Your task to perform on an android device: turn on javascript in the chrome app Image 0: 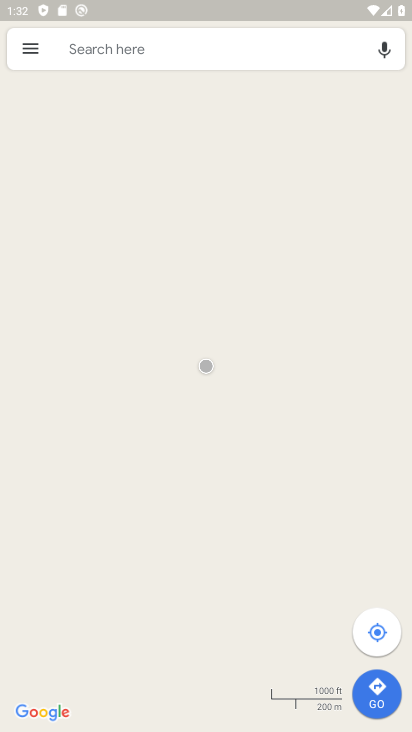
Step 0: press home button
Your task to perform on an android device: turn on javascript in the chrome app Image 1: 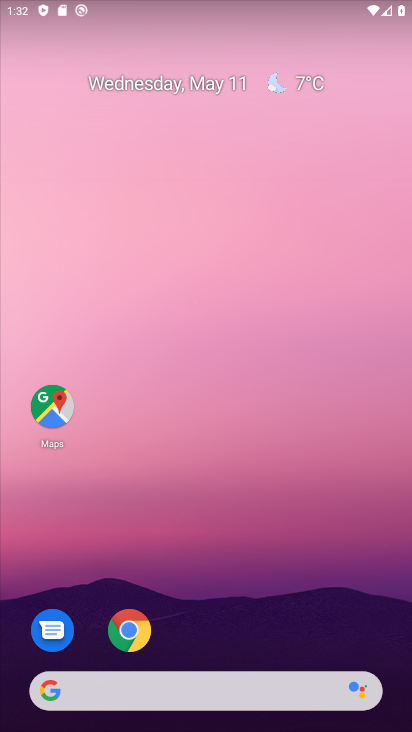
Step 1: drag from (389, 614) to (293, 107)
Your task to perform on an android device: turn on javascript in the chrome app Image 2: 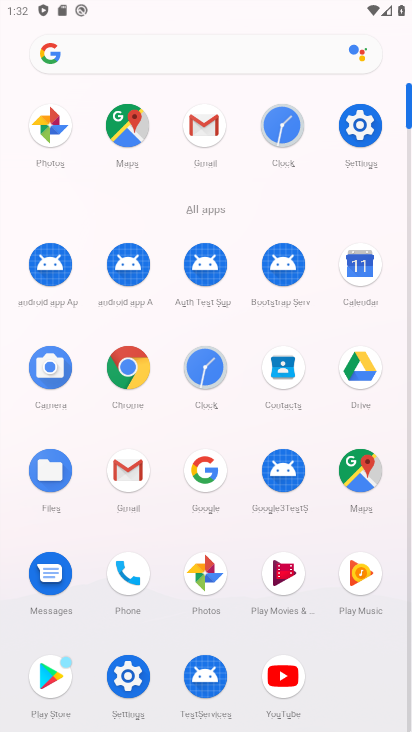
Step 2: click (143, 371)
Your task to perform on an android device: turn on javascript in the chrome app Image 3: 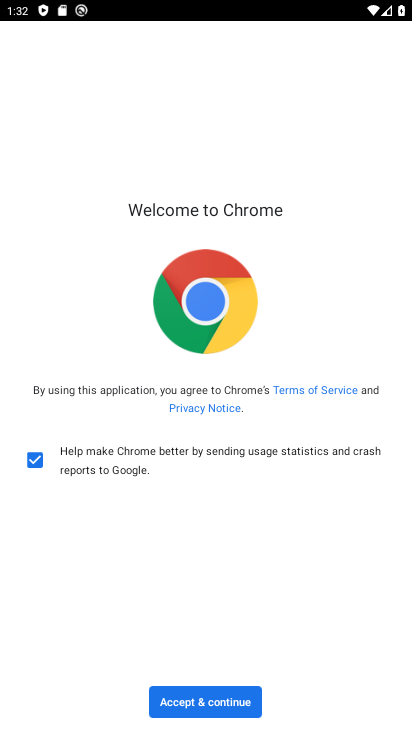
Step 3: click (227, 702)
Your task to perform on an android device: turn on javascript in the chrome app Image 4: 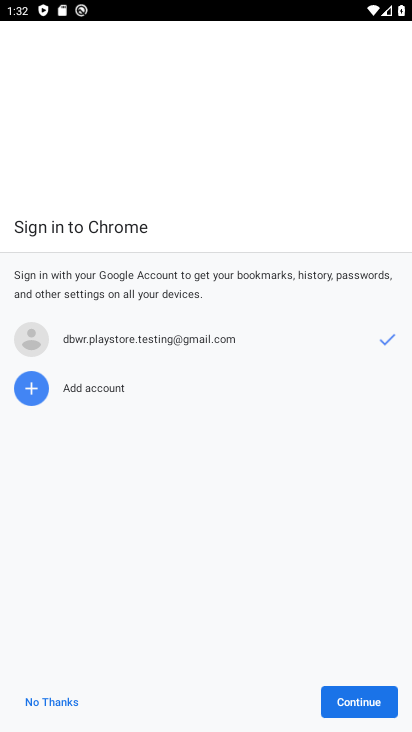
Step 4: click (344, 710)
Your task to perform on an android device: turn on javascript in the chrome app Image 5: 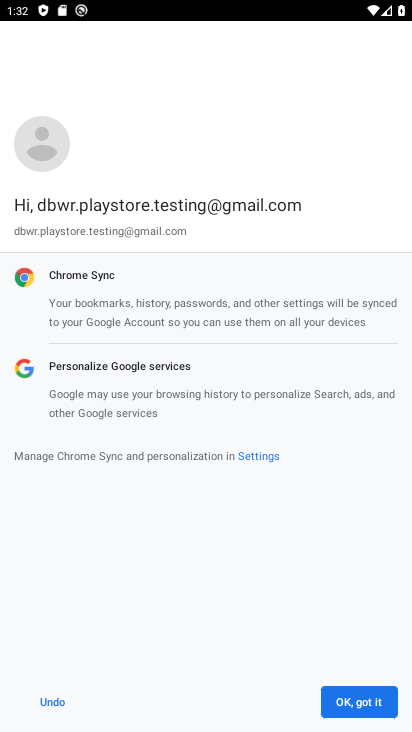
Step 5: click (344, 710)
Your task to perform on an android device: turn on javascript in the chrome app Image 6: 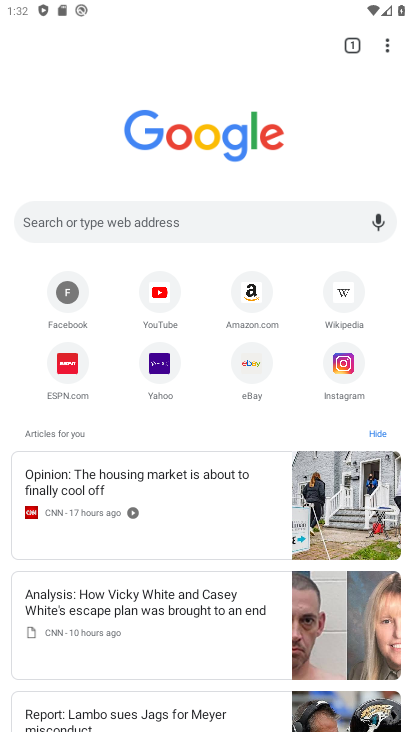
Step 6: click (388, 46)
Your task to perform on an android device: turn on javascript in the chrome app Image 7: 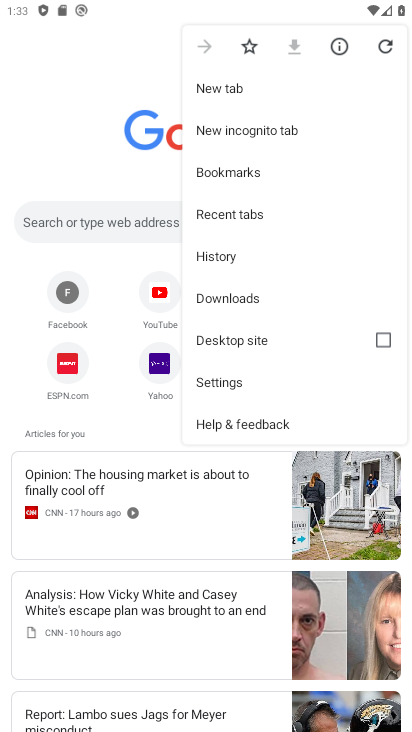
Step 7: click (260, 374)
Your task to perform on an android device: turn on javascript in the chrome app Image 8: 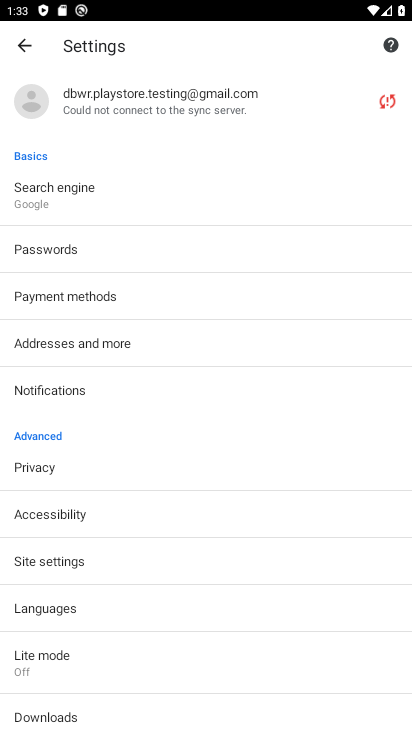
Step 8: click (140, 559)
Your task to perform on an android device: turn on javascript in the chrome app Image 9: 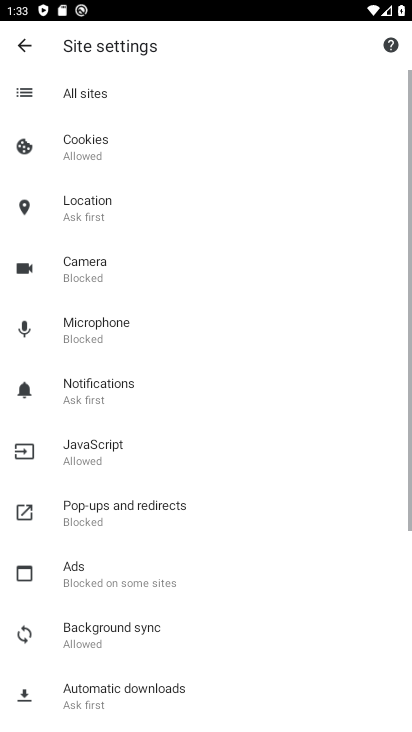
Step 9: click (145, 464)
Your task to perform on an android device: turn on javascript in the chrome app Image 10: 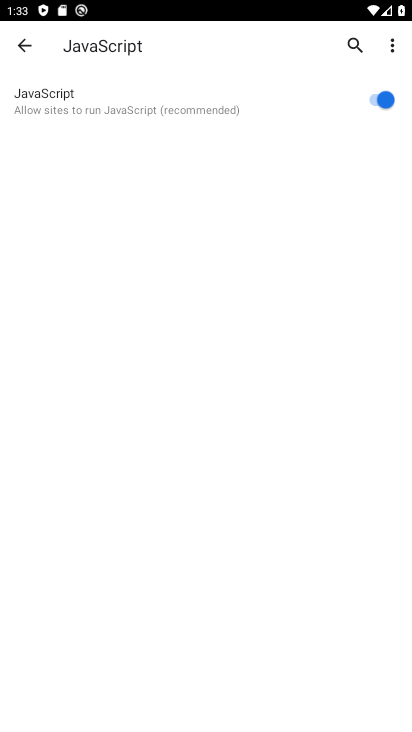
Step 10: task complete